Your task to perform on an android device: Open sound settings Image 0: 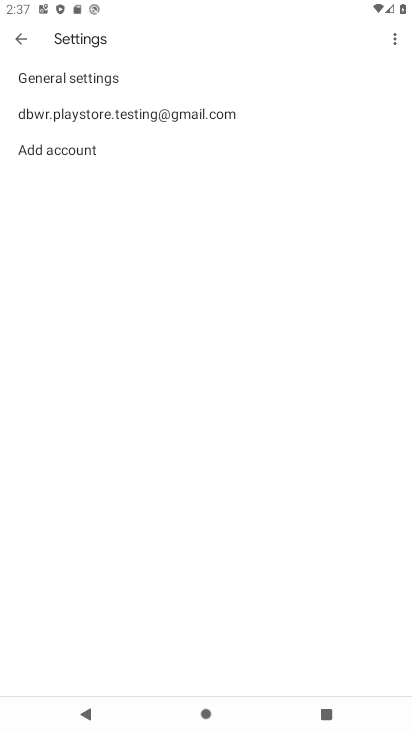
Step 0: press home button
Your task to perform on an android device: Open sound settings Image 1: 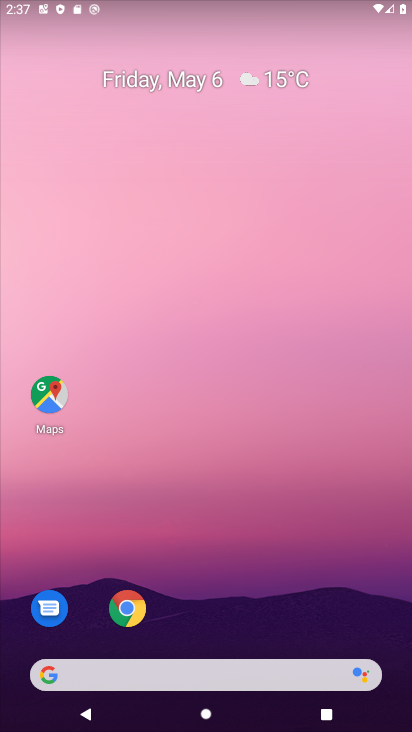
Step 1: drag from (198, 657) to (395, 138)
Your task to perform on an android device: Open sound settings Image 2: 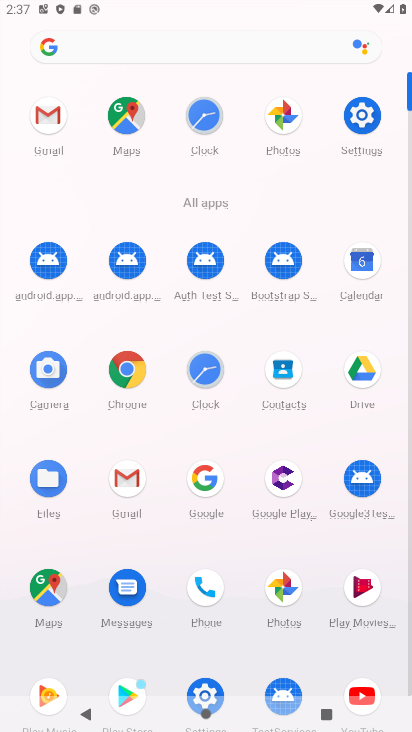
Step 2: click (354, 114)
Your task to perform on an android device: Open sound settings Image 3: 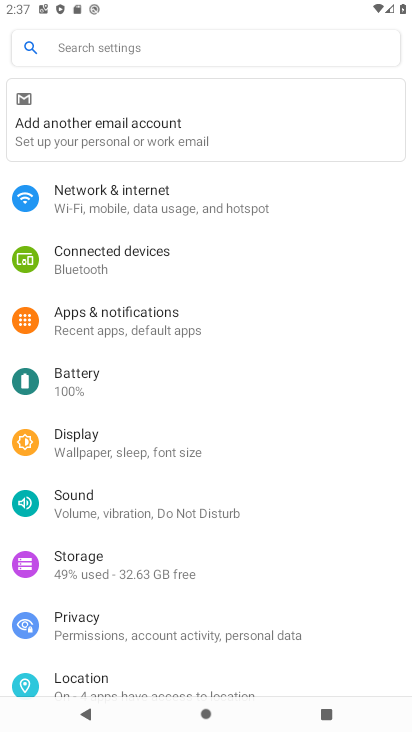
Step 3: click (113, 503)
Your task to perform on an android device: Open sound settings Image 4: 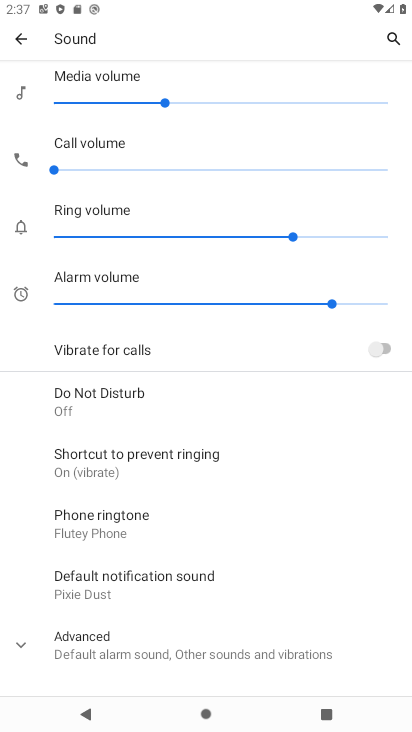
Step 4: task complete